Your task to perform on an android device: Open Google Chrome and click the shortcut for Amazon.com Image 0: 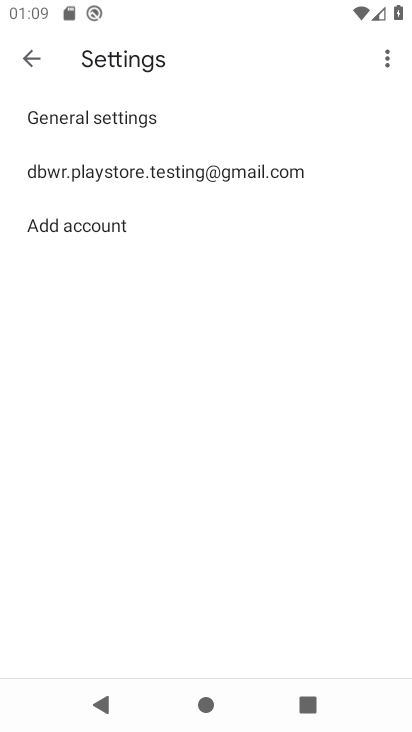
Step 0: press home button
Your task to perform on an android device: Open Google Chrome and click the shortcut for Amazon.com Image 1: 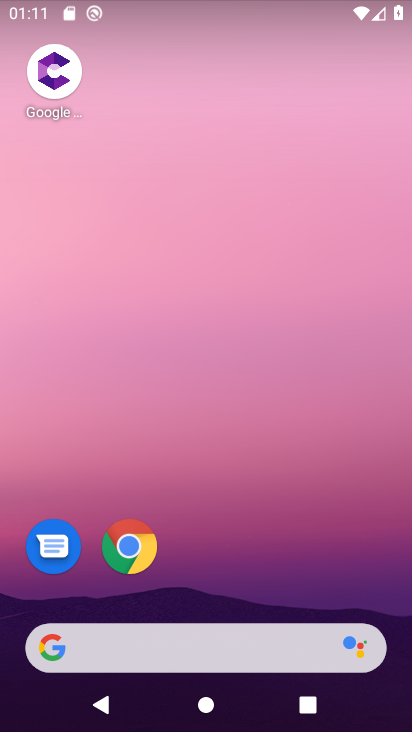
Step 1: click (124, 564)
Your task to perform on an android device: Open Google Chrome and click the shortcut for Amazon.com Image 2: 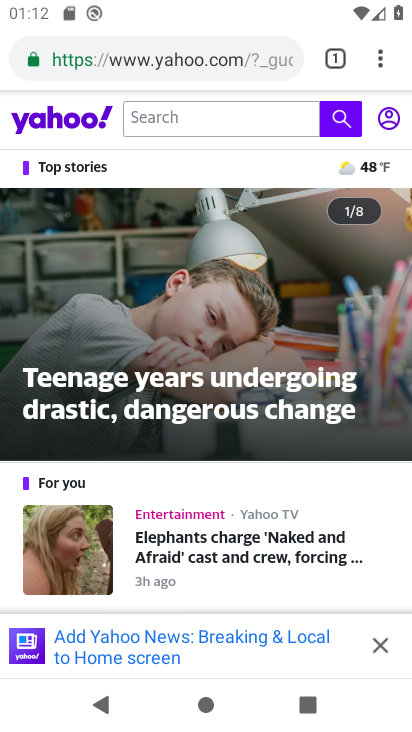
Step 2: drag from (371, 47) to (294, 177)
Your task to perform on an android device: Open Google Chrome and click the shortcut for Amazon.com Image 3: 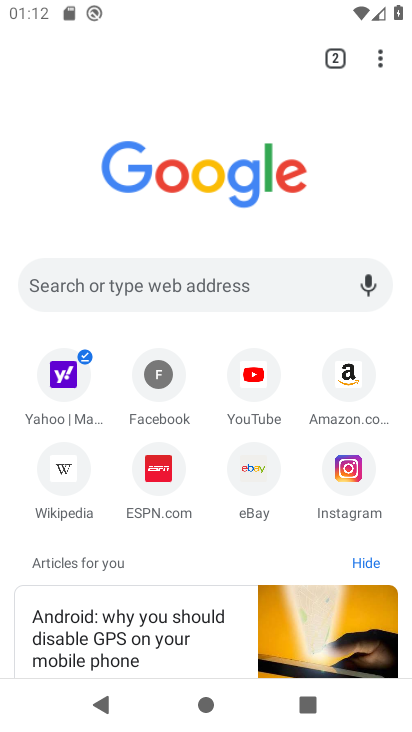
Step 3: click (357, 386)
Your task to perform on an android device: Open Google Chrome and click the shortcut for Amazon.com Image 4: 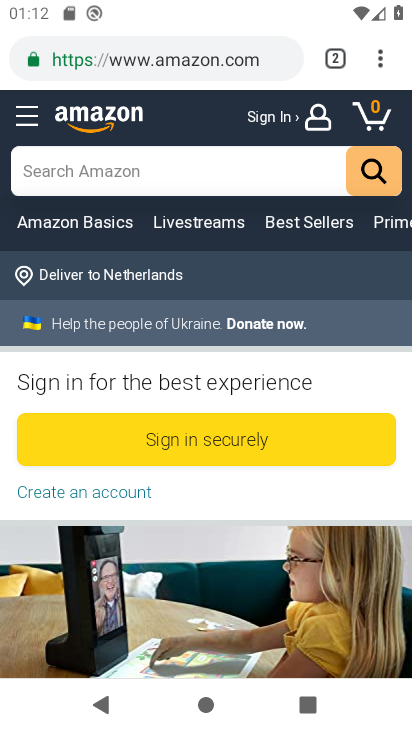
Step 4: task complete